Your task to perform on an android device: Open maps Image 0: 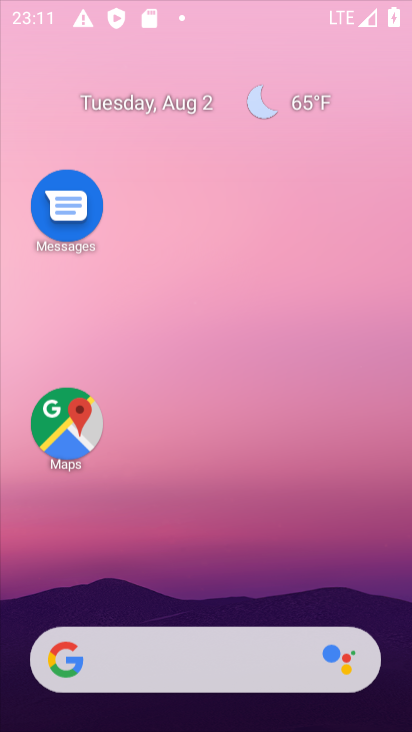
Step 0: click (251, 344)
Your task to perform on an android device: Open maps Image 1: 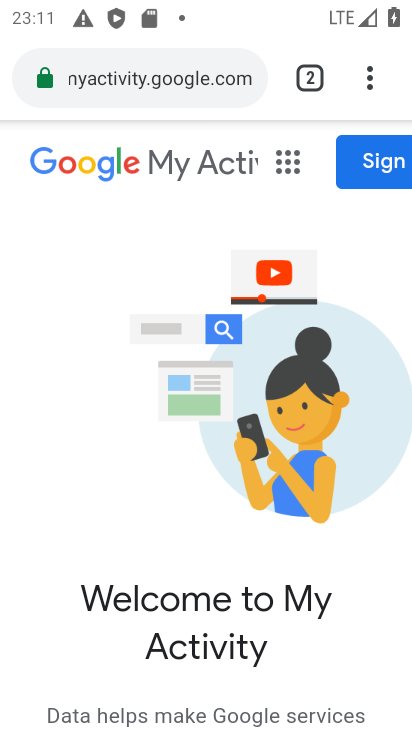
Step 1: press back button
Your task to perform on an android device: Open maps Image 2: 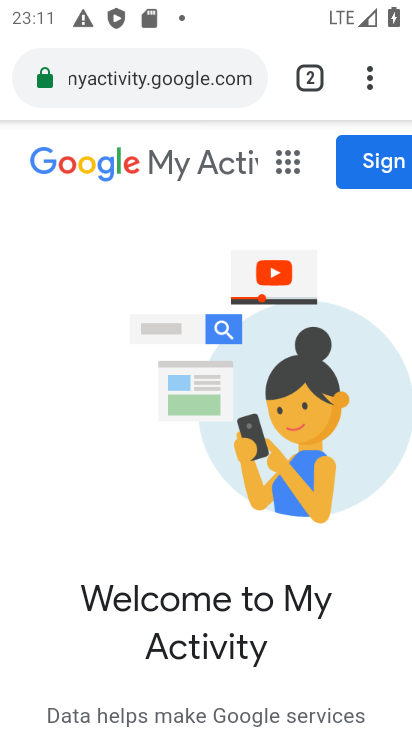
Step 2: press back button
Your task to perform on an android device: Open maps Image 3: 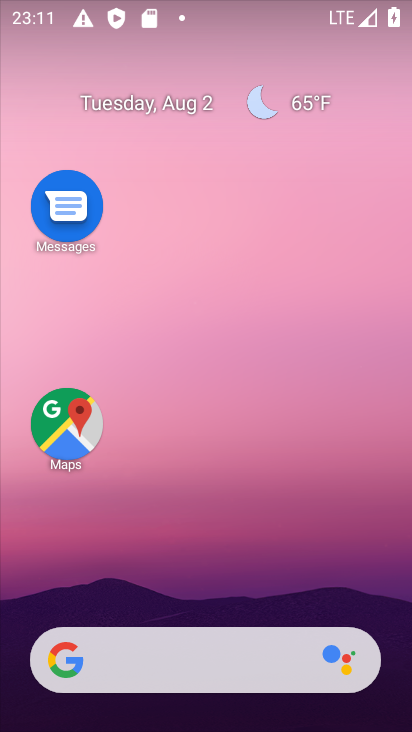
Step 3: drag from (260, 450) to (227, 179)
Your task to perform on an android device: Open maps Image 4: 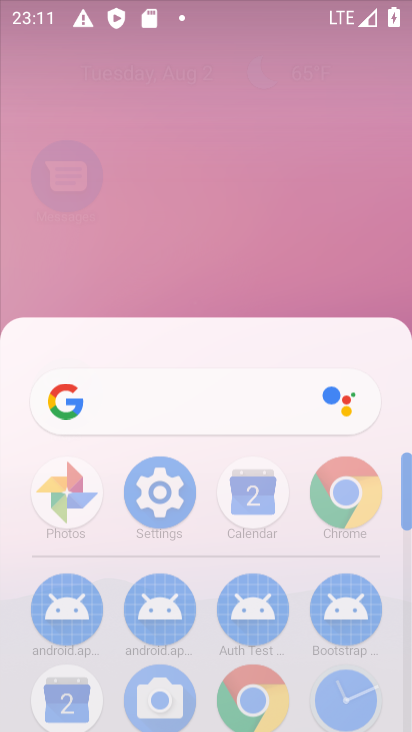
Step 4: drag from (209, 539) to (175, 65)
Your task to perform on an android device: Open maps Image 5: 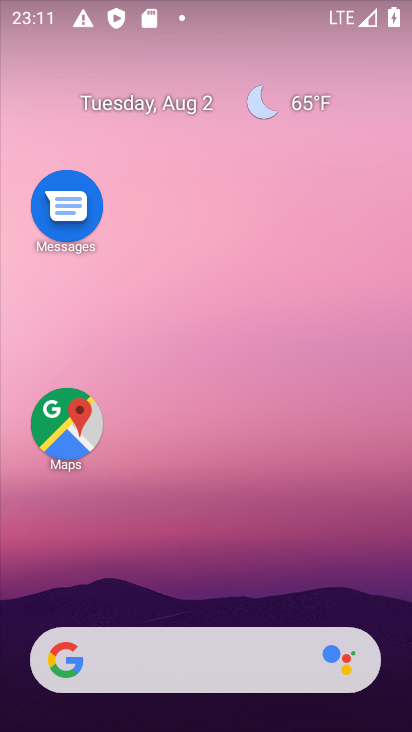
Step 5: drag from (197, 243) to (197, 160)
Your task to perform on an android device: Open maps Image 6: 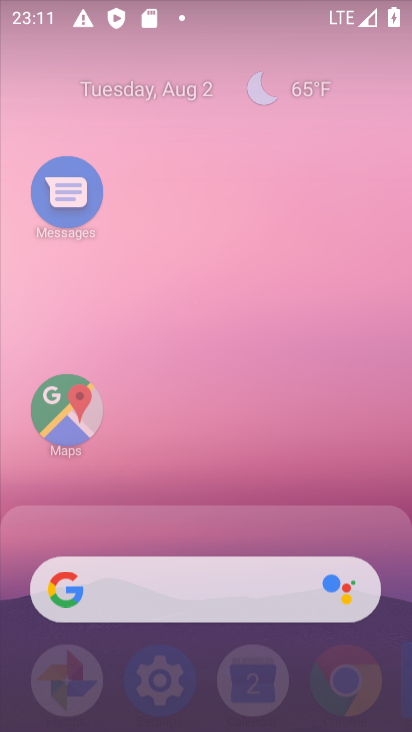
Step 6: drag from (186, 467) to (159, 191)
Your task to perform on an android device: Open maps Image 7: 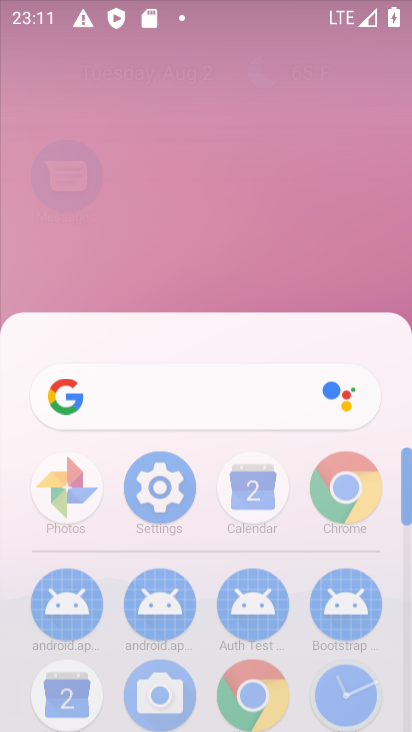
Step 7: drag from (205, 241) to (205, 191)
Your task to perform on an android device: Open maps Image 8: 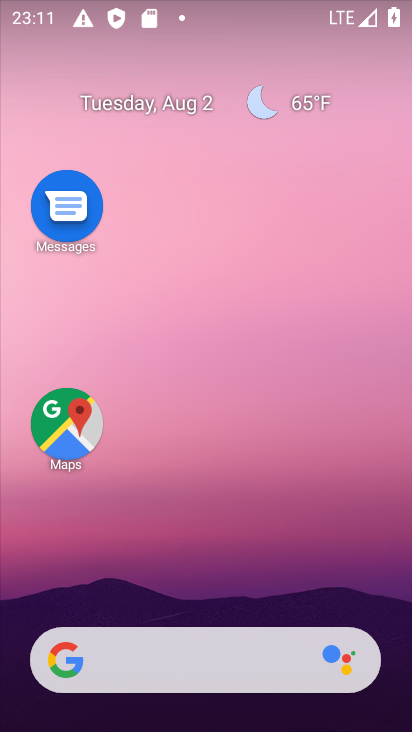
Step 8: drag from (226, 582) to (226, 272)
Your task to perform on an android device: Open maps Image 9: 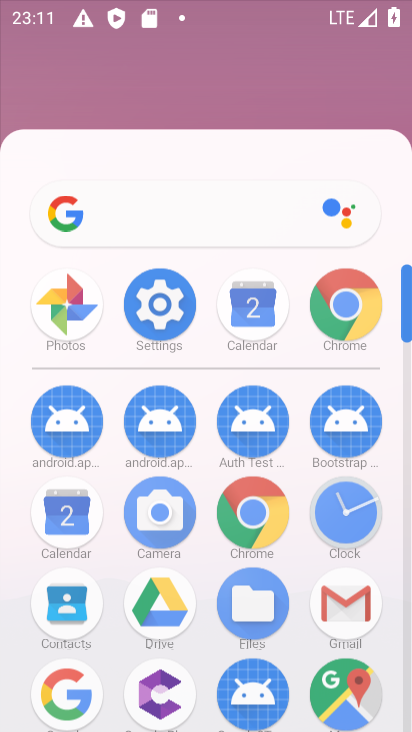
Step 9: drag from (232, 572) to (225, 180)
Your task to perform on an android device: Open maps Image 10: 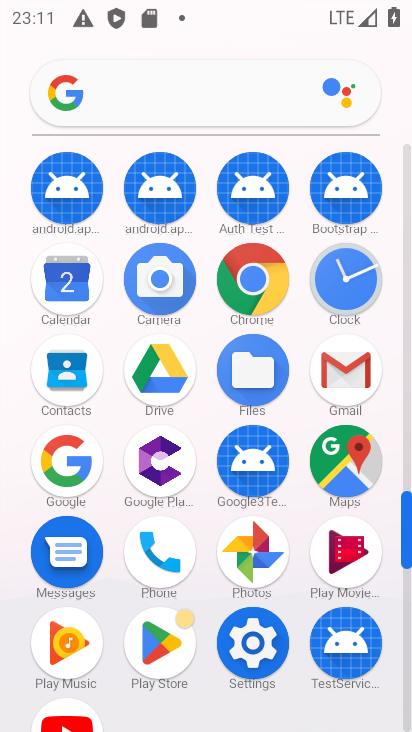
Step 10: drag from (144, 284) to (142, 228)
Your task to perform on an android device: Open maps Image 11: 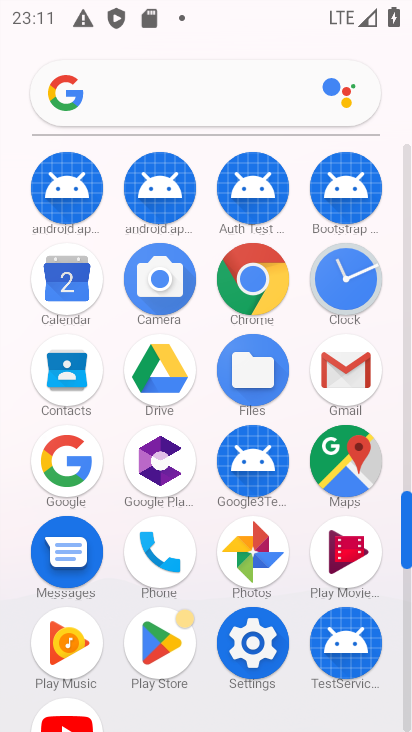
Step 11: click (353, 441)
Your task to perform on an android device: Open maps Image 12: 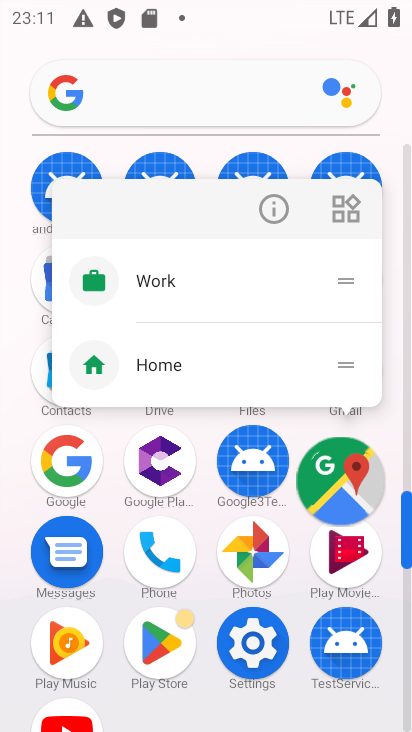
Step 12: click (345, 464)
Your task to perform on an android device: Open maps Image 13: 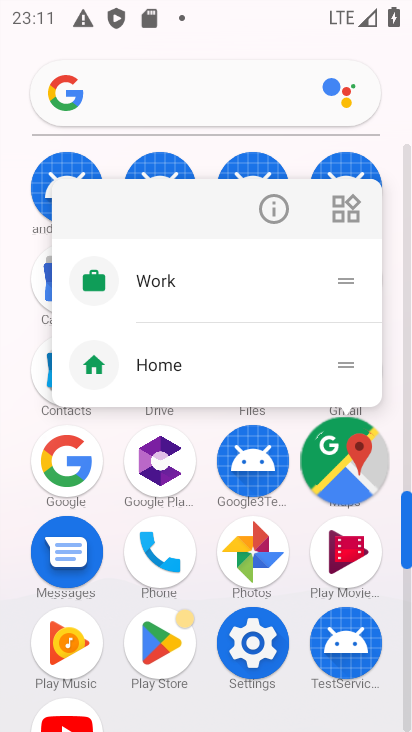
Step 13: click (340, 470)
Your task to perform on an android device: Open maps Image 14: 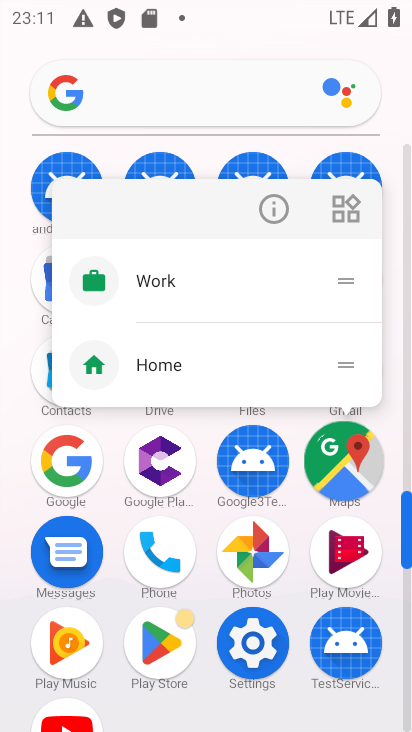
Step 14: click (343, 471)
Your task to perform on an android device: Open maps Image 15: 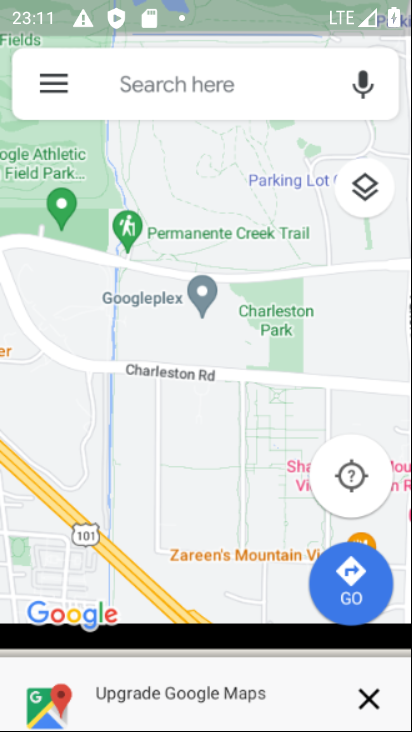
Step 15: click (350, 471)
Your task to perform on an android device: Open maps Image 16: 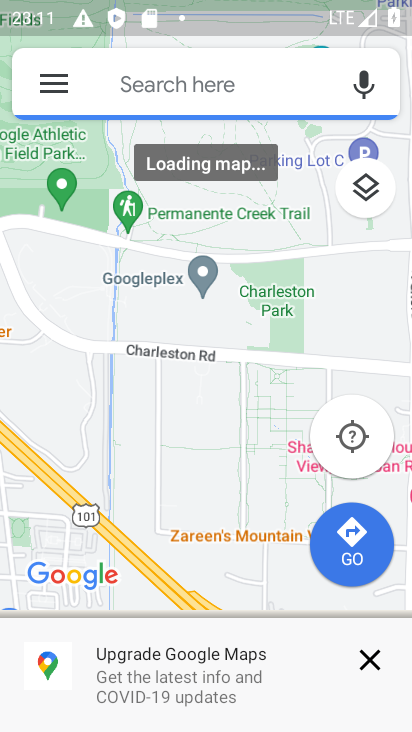
Step 16: task complete